Your task to perform on an android device: Open the phone app and click the voicemail tab. Image 0: 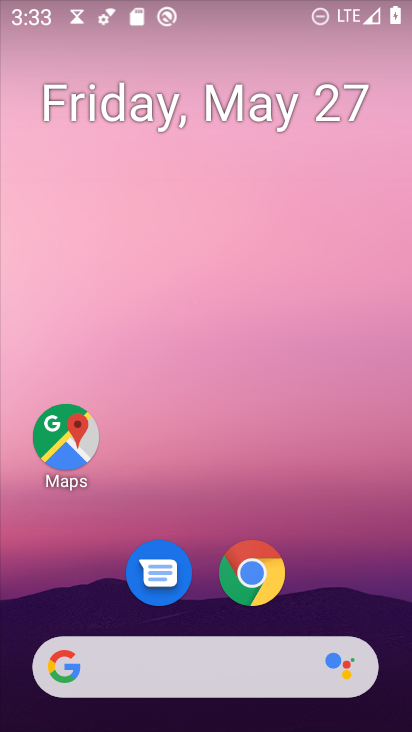
Step 0: drag from (334, 591) to (324, 58)
Your task to perform on an android device: Open the phone app and click the voicemail tab. Image 1: 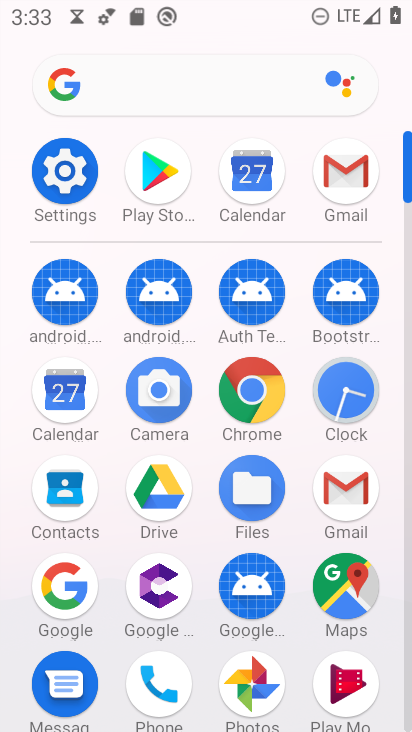
Step 1: click (165, 678)
Your task to perform on an android device: Open the phone app and click the voicemail tab. Image 2: 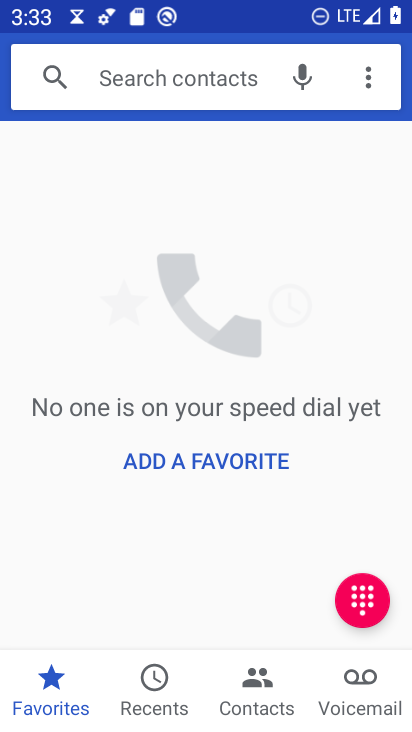
Step 2: click (361, 690)
Your task to perform on an android device: Open the phone app and click the voicemail tab. Image 3: 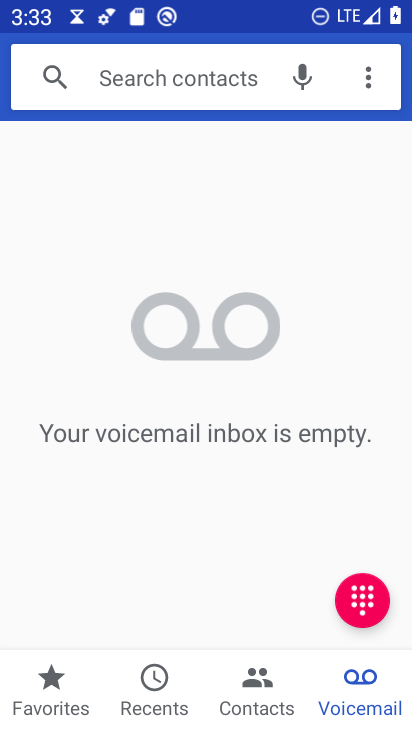
Step 3: task complete